Your task to perform on an android device: find photos in the google photos app Image 0: 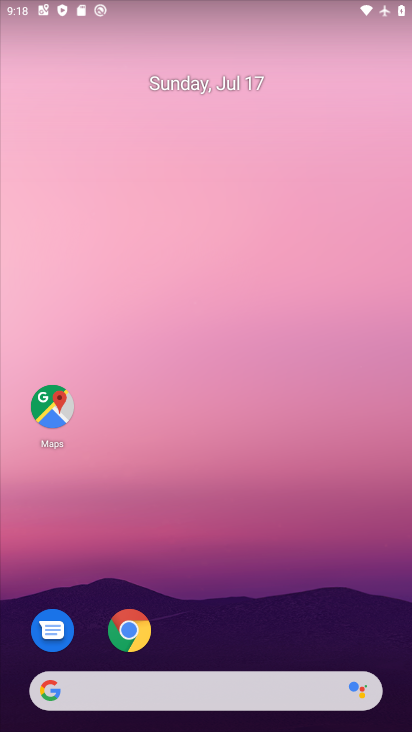
Step 0: drag from (214, 648) to (174, 136)
Your task to perform on an android device: find photos in the google photos app Image 1: 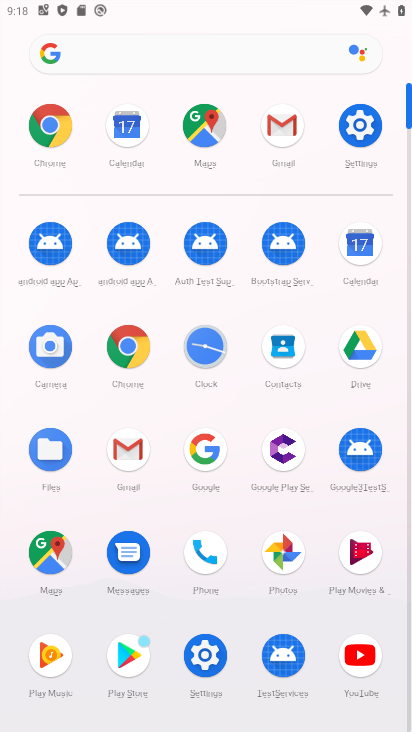
Step 1: click (267, 551)
Your task to perform on an android device: find photos in the google photos app Image 2: 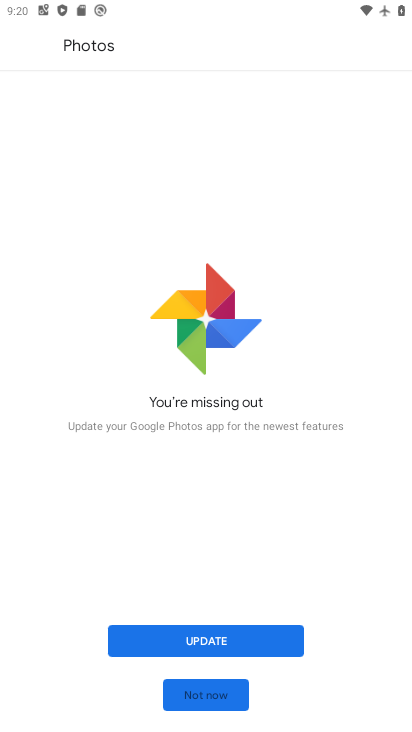
Step 2: click (227, 632)
Your task to perform on an android device: find photos in the google photos app Image 3: 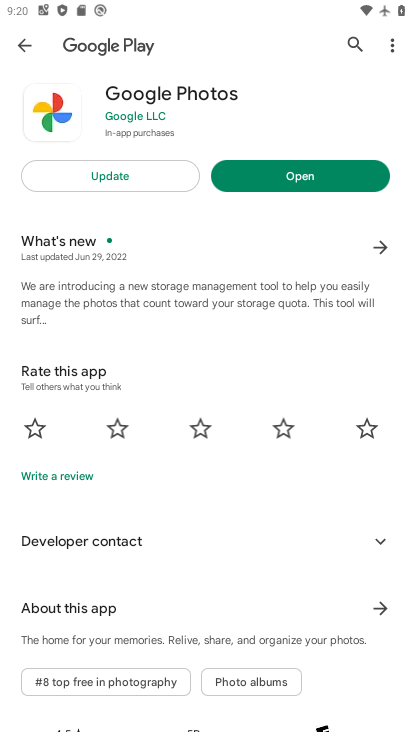
Step 3: click (88, 172)
Your task to perform on an android device: find photos in the google photos app Image 4: 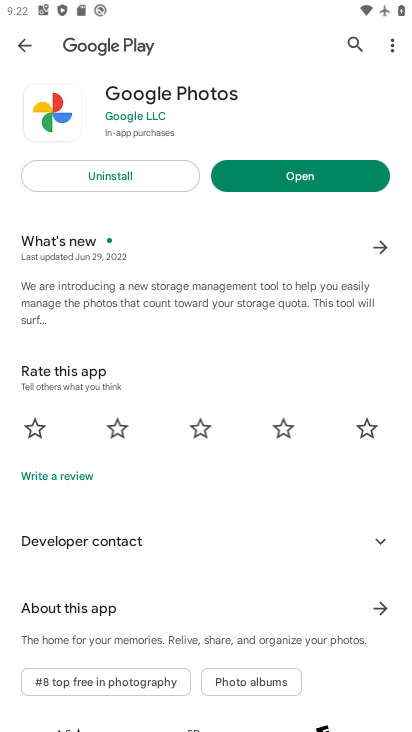
Step 4: click (263, 162)
Your task to perform on an android device: find photos in the google photos app Image 5: 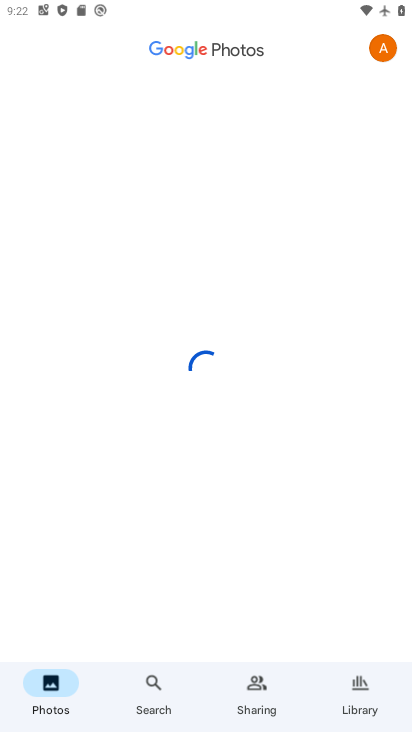
Step 5: task complete